Your task to perform on an android device: Open my contact list Image 0: 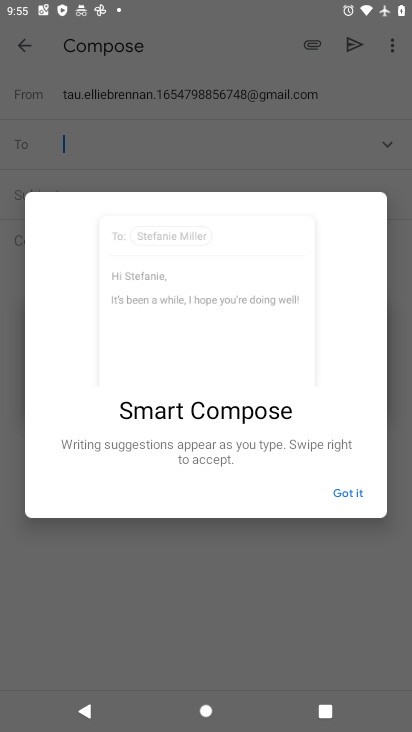
Step 0: press home button
Your task to perform on an android device: Open my contact list Image 1: 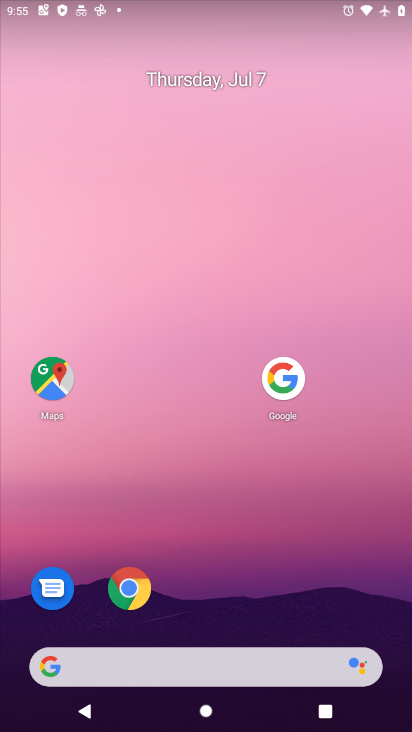
Step 1: drag from (186, 663) to (318, 156)
Your task to perform on an android device: Open my contact list Image 2: 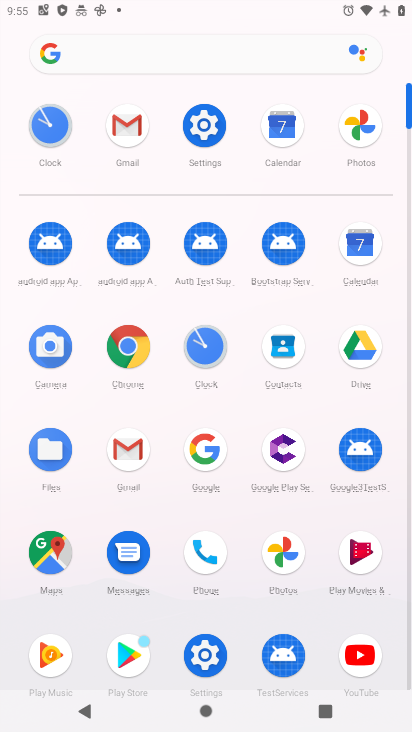
Step 2: click (285, 354)
Your task to perform on an android device: Open my contact list Image 3: 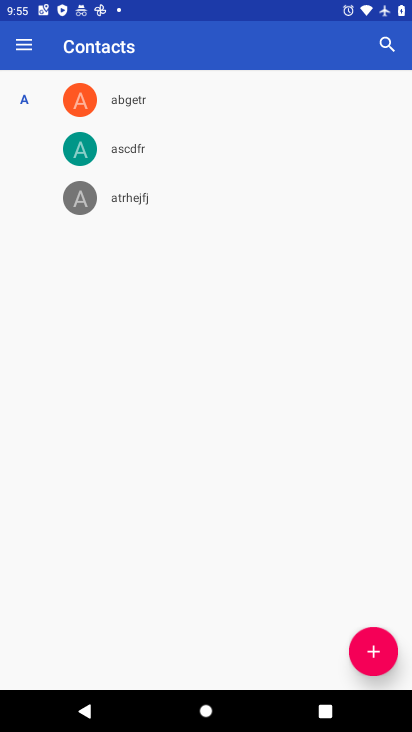
Step 3: click (373, 650)
Your task to perform on an android device: Open my contact list Image 4: 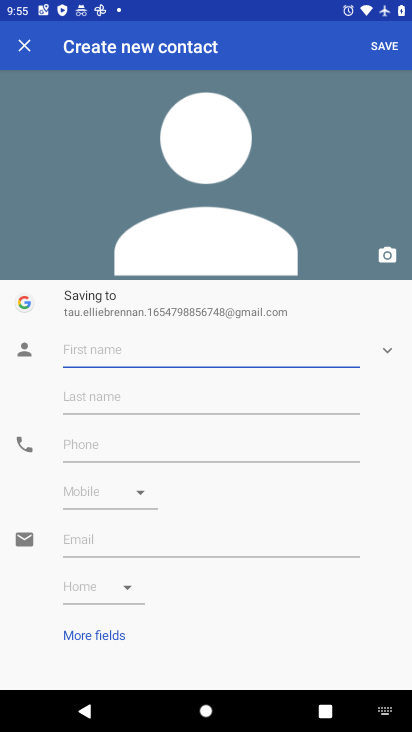
Step 4: click (65, 341)
Your task to perform on an android device: Open my contact list Image 5: 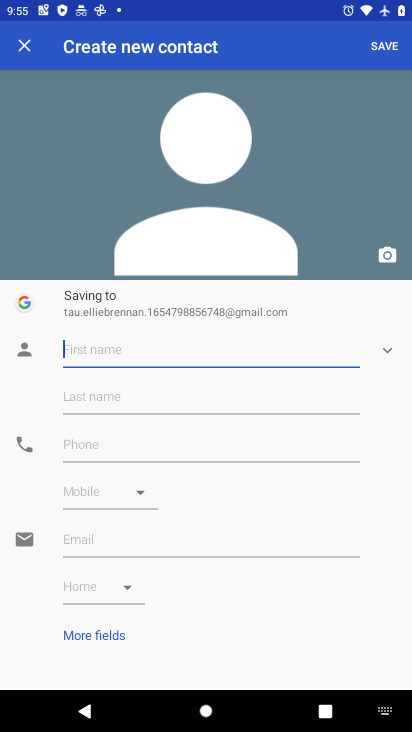
Step 5: type "aerdfghy"
Your task to perform on an android device: Open my contact list Image 6: 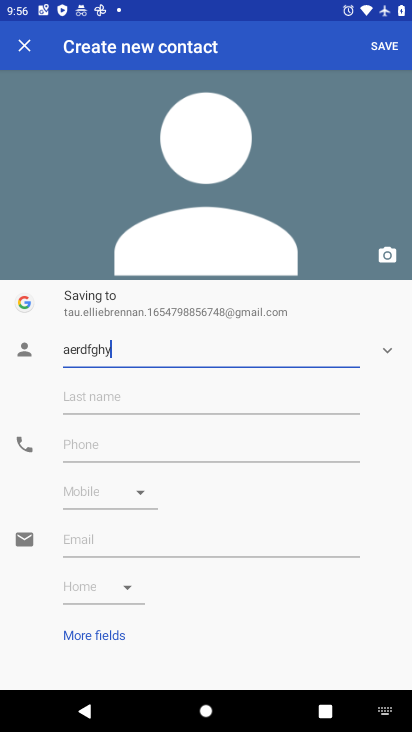
Step 6: click (136, 447)
Your task to perform on an android device: Open my contact list Image 7: 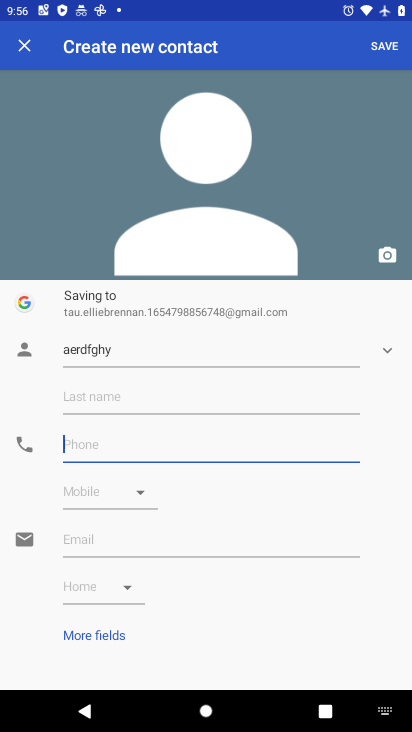
Step 7: type "2745584358"
Your task to perform on an android device: Open my contact list Image 8: 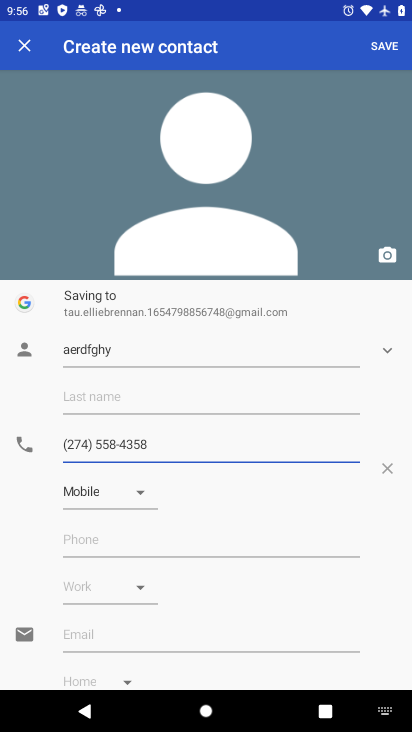
Step 8: click (375, 47)
Your task to perform on an android device: Open my contact list Image 9: 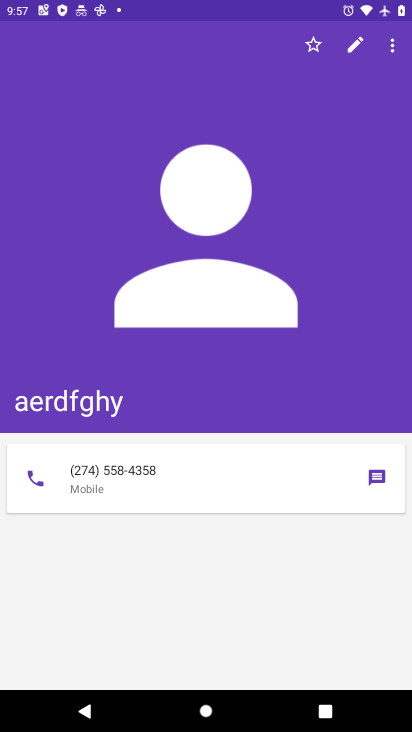
Step 9: task complete